Your task to perform on an android device: open chrome and create a bookmark for the current page Image 0: 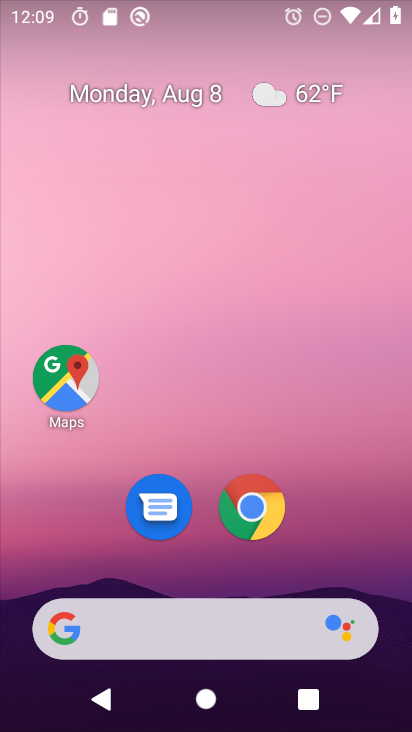
Step 0: drag from (349, 515) to (317, 0)
Your task to perform on an android device: open chrome and create a bookmark for the current page Image 1: 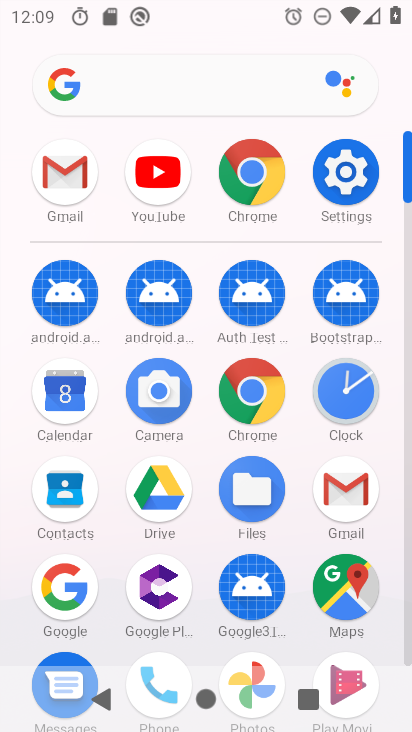
Step 1: click (255, 390)
Your task to perform on an android device: open chrome and create a bookmark for the current page Image 2: 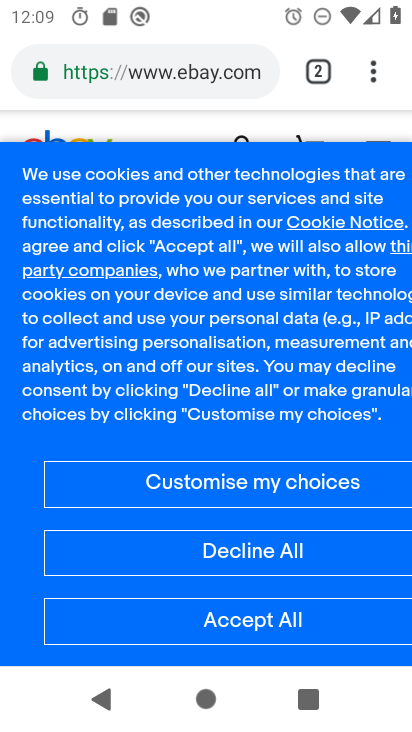
Step 2: task complete